Your task to perform on an android device: Show me the alarms in the clock app Image 0: 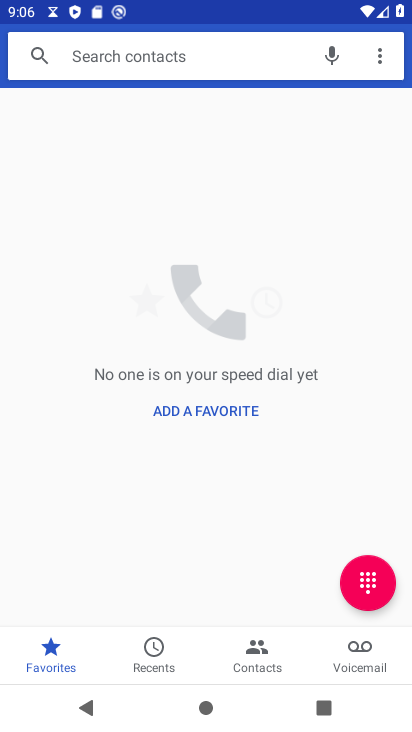
Step 0: press home button
Your task to perform on an android device: Show me the alarms in the clock app Image 1: 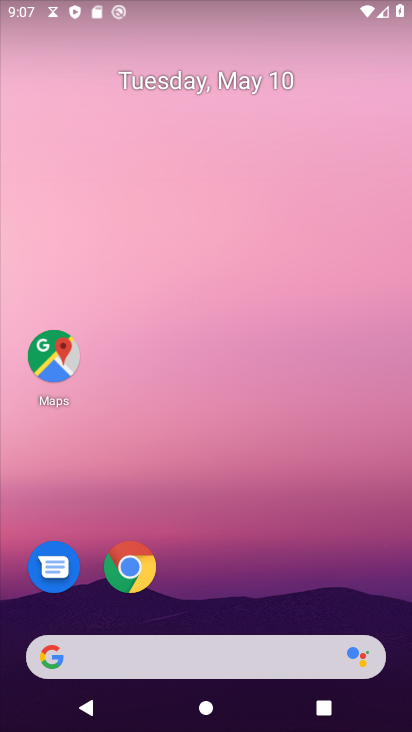
Step 1: drag from (50, 601) to (177, 285)
Your task to perform on an android device: Show me the alarms in the clock app Image 2: 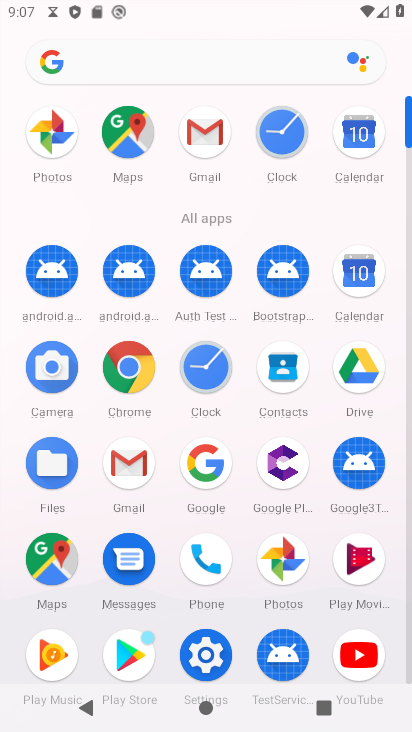
Step 2: click (277, 115)
Your task to perform on an android device: Show me the alarms in the clock app Image 3: 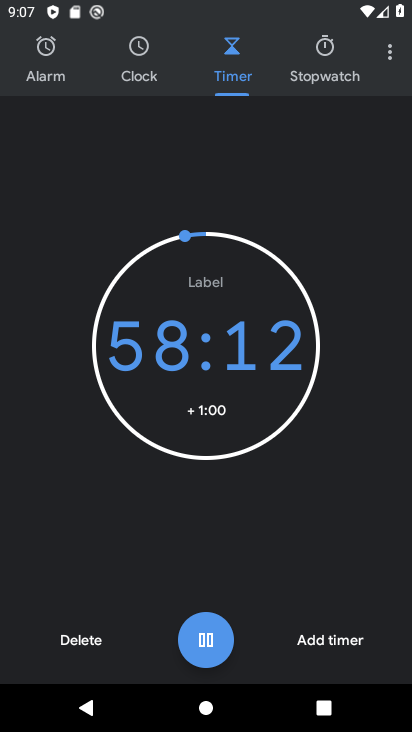
Step 3: click (47, 66)
Your task to perform on an android device: Show me the alarms in the clock app Image 4: 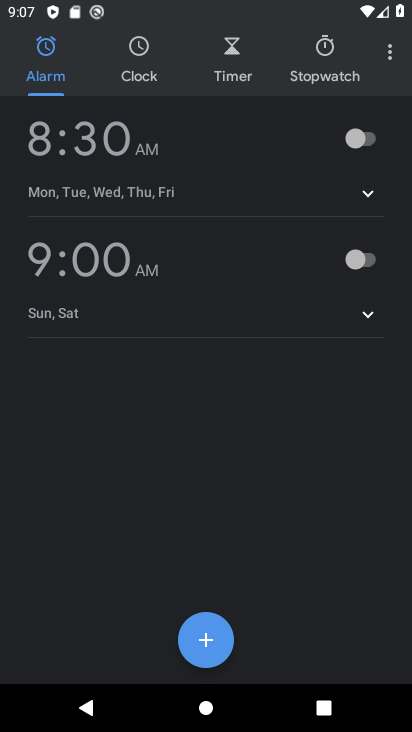
Step 4: task complete